Your task to perform on an android device: Add duracell triple a to the cart on walmart.com Image 0: 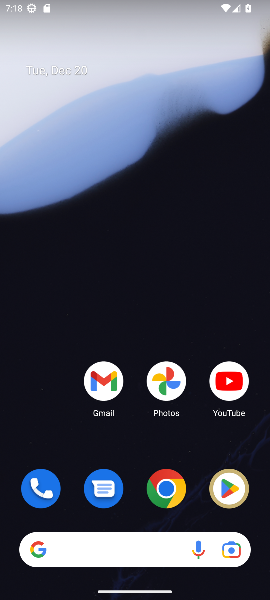
Step 0: press home button
Your task to perform on an android device: Add duracell triple a to the cart on walmart.com Image 1: 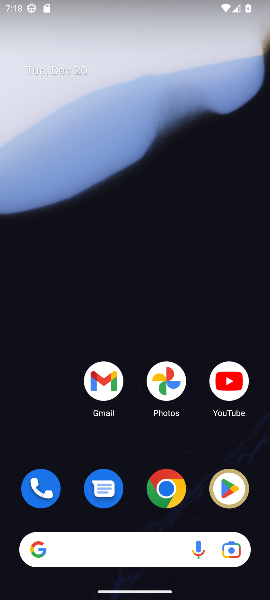
Step 1: drag from (62, 434) to (52, 72)
Your task to perform on an android device: Add duracell triple a to the cart on walmart.com Image 2: 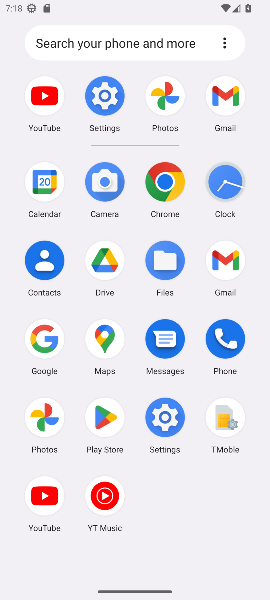
Step 2: click (47, 334)
Your task to perform on an android device: Add duracell triple a to the cart on walmart.com Image 3: 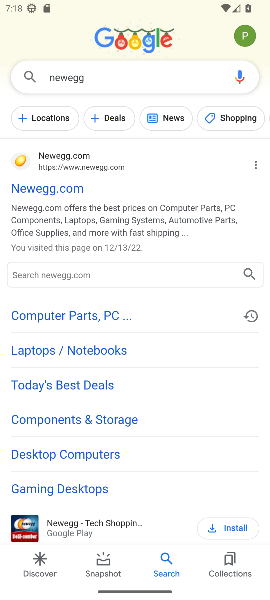
Step 3: click (106, 69)
Your task to perform on an android device: Add duracell triple a to the cart on walmart.com Image 4: 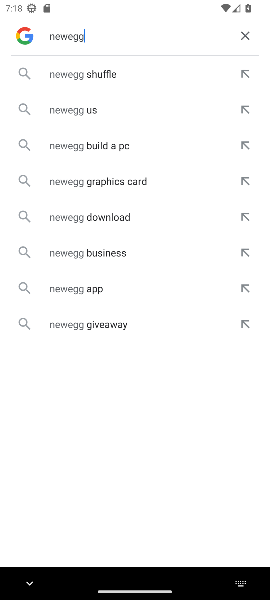
Step 4: click (245, 33)
Your task to perform on an android device: Add duracell triple a to the cart on walmart.com Image 5: 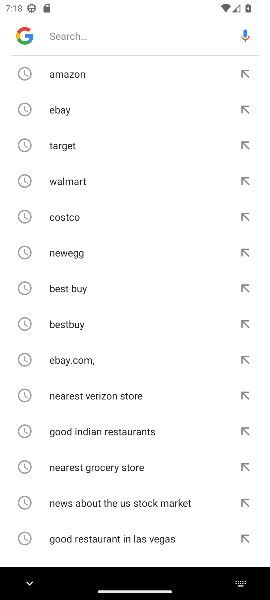
Step 5: type "walmart.com"
Your task to perform on an android device: Add duracell triple a to the cart on walmart.com Image 6: 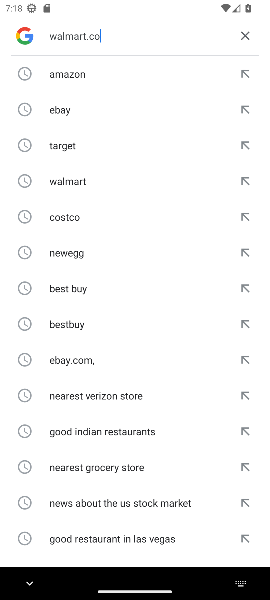
Step 6: press enter
Your task to perform on an android device: Add duracell triple a to the cart on walmart.com Image 7: 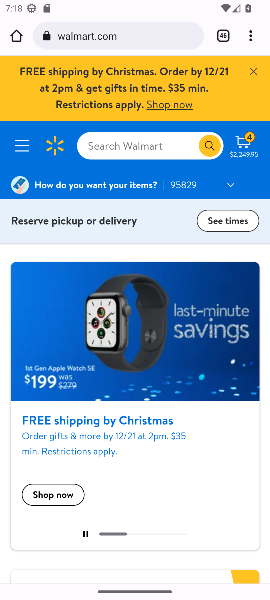
Step 7: click (99, 140)
Your task to perform on an android device: Add duracell triple a to the cart on walmart.com Image 8: 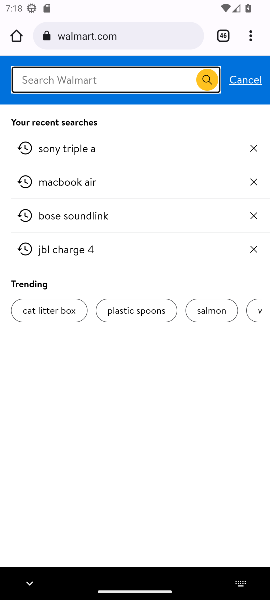
Step 8: type "duracell triple a"
Your task to perform on an android device: Add duracell triple a to the cart on walmart.com Image 9: 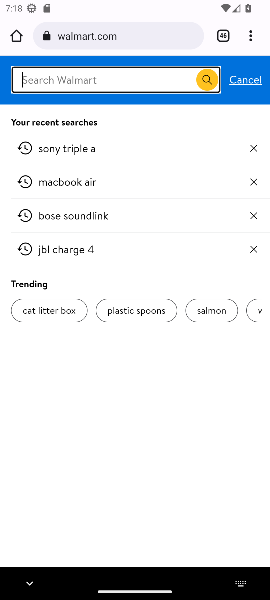
Step 9: press enter
Your task to perform on an android device: Add duracell triple a to the cart on walmart.com Image 10: 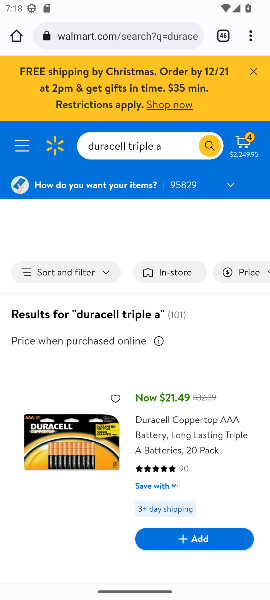
Step 10: click (195, 539)
Your task to perform on an android device: Add duracell triple a to the cart on walmart.com Image 11: 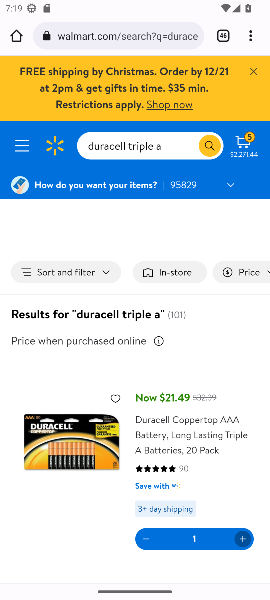
Step 11: task complete